Your task to perform on an android device: Turn on the flashlight Image 0: 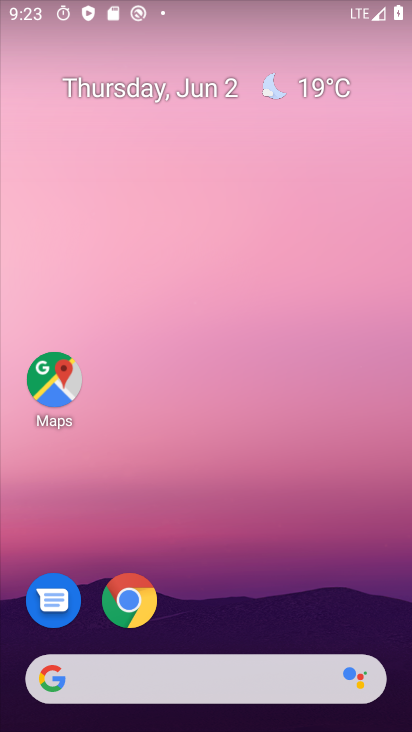
Step 0: drag from (221, 634) to (228, 246)
Your task to perform on an android device: Turn on the flashlight Image 1: 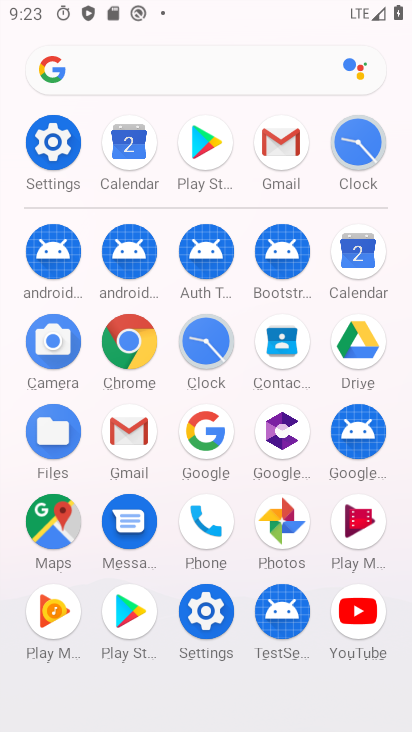
Step 1: click (39, 149)
Your task to perform on an android device: Turn on the flashlight Image 2: 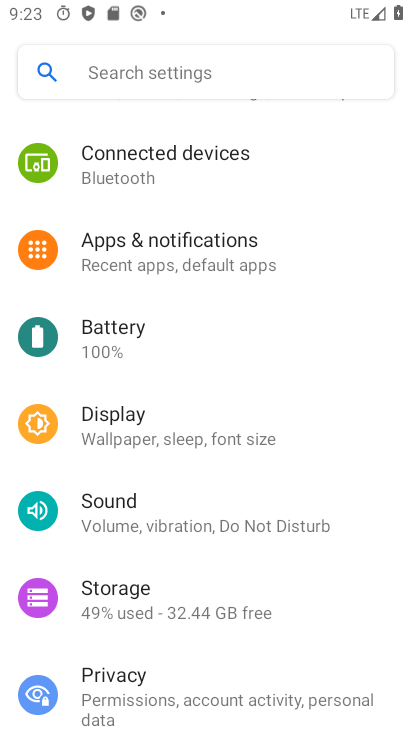
Step 2: task complete